Your task to perform on an android device: change notification settings in the gmail app Image 0: 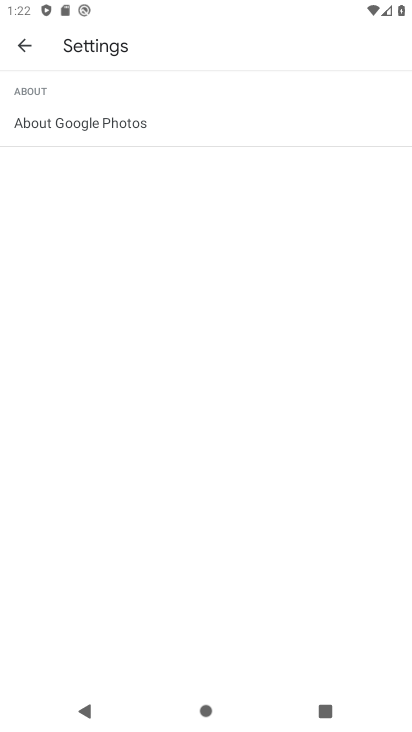
Step 0: press home button
Your task to perform on an android device: change notification settings in the gmail app Image 1: 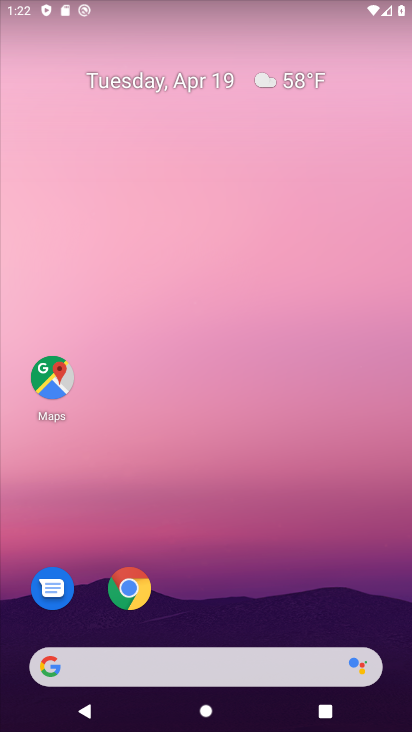
Step 1: drag from (275, 570) to (348, 32)
Your task to perform on an android device: change notification settings in the gmail app Image 2: 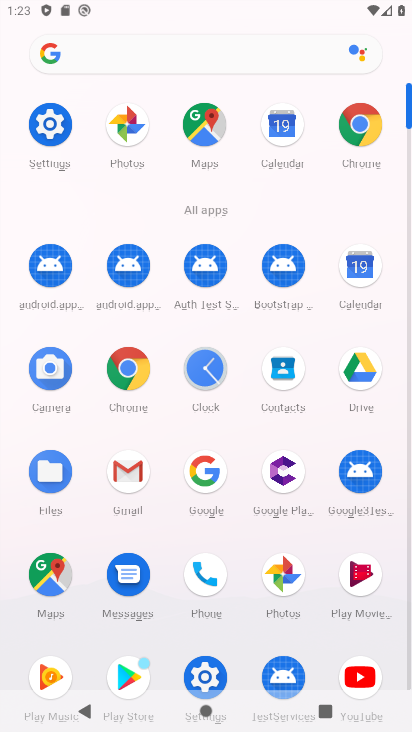
Step 2: click (131, 470)
Your task to perform on an android device: change notification settings in the gmail app Image 3: 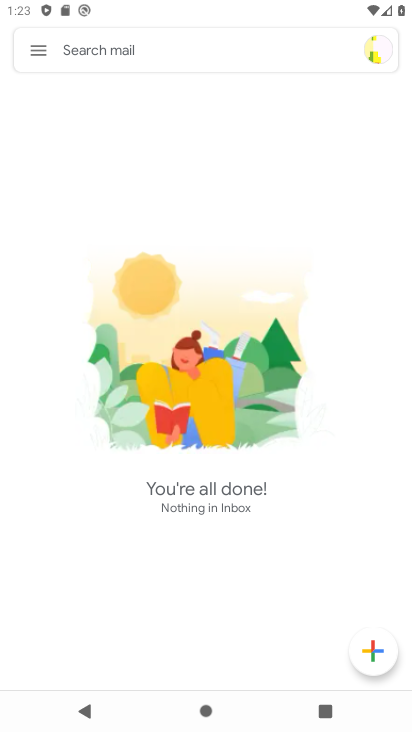
Step 3: click (38, 45)
Your task to perform on an android device: change notification settings in the gmail app Image 4: 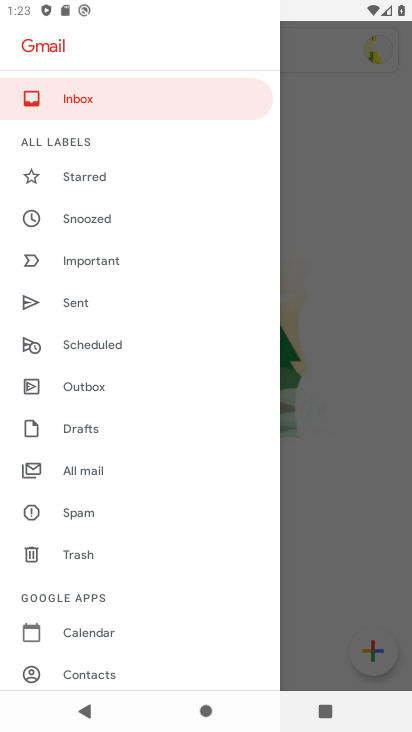
Step 4: drag from (135, 618) to (139, 443)
Your task to perform on an android device: change notification settings in the gmail app Image 5: 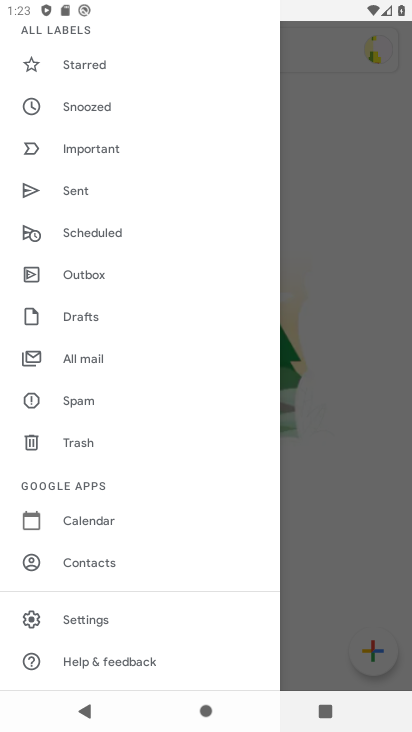
Step 5: click (99, 618)
Your task to perform on an android device: change notification settings in the gmail app Image 6: 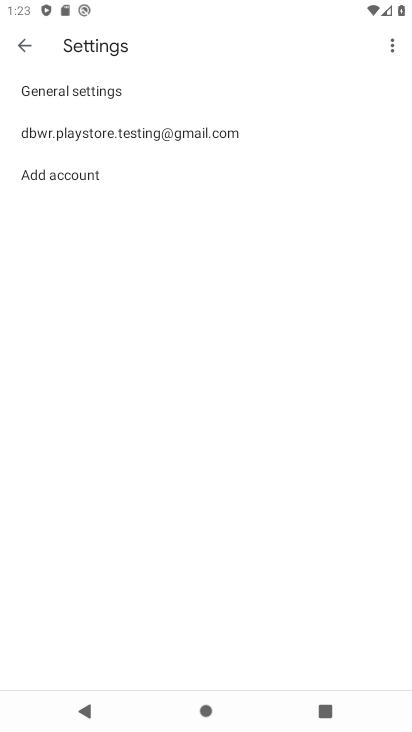
Step 6: click (230, 126)
Your task to perform on an android device: change notification settings in the gmail app Image 7: 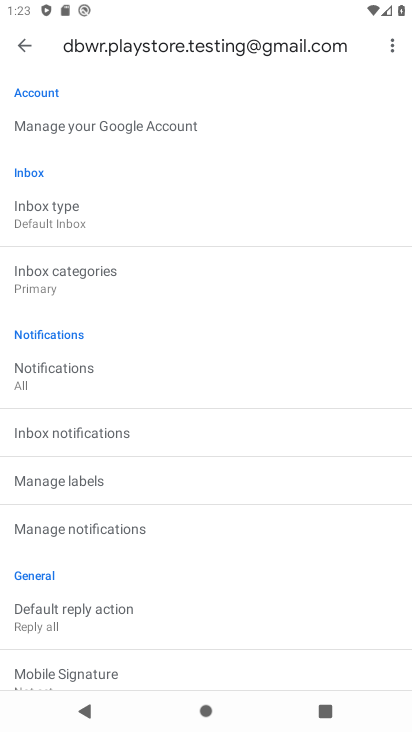
Step 7: click (179, 526)
Your task to perform on an android device: change notification settings in the gmail app Image 8: 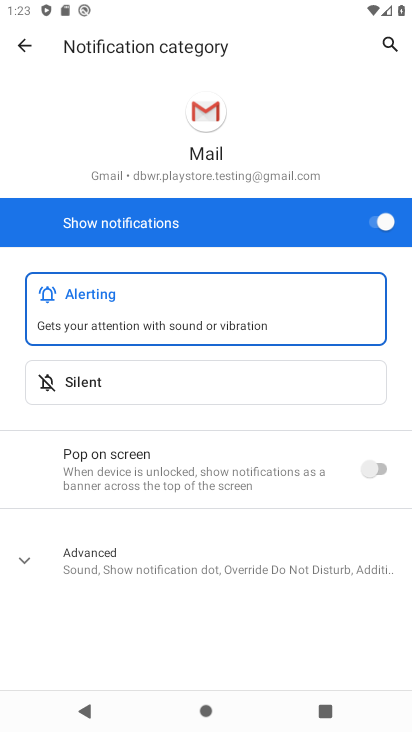
Step 8: click (379, 210)
Your task to perform on an android device: change notification settings in the gmail app Image 9: 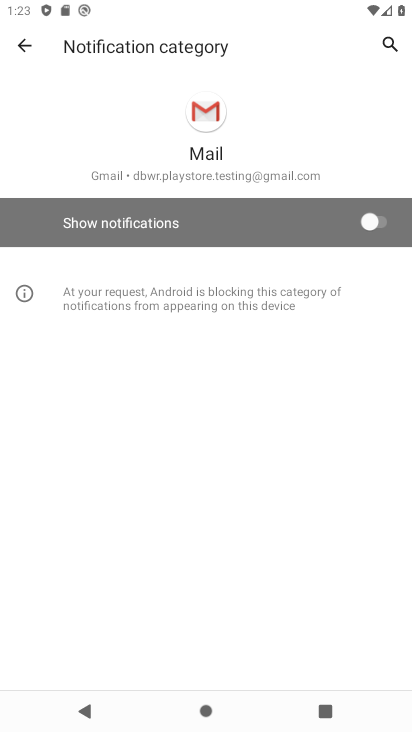
Step 9: task complete